Your task to perform on an android device: turn off location Image 0: 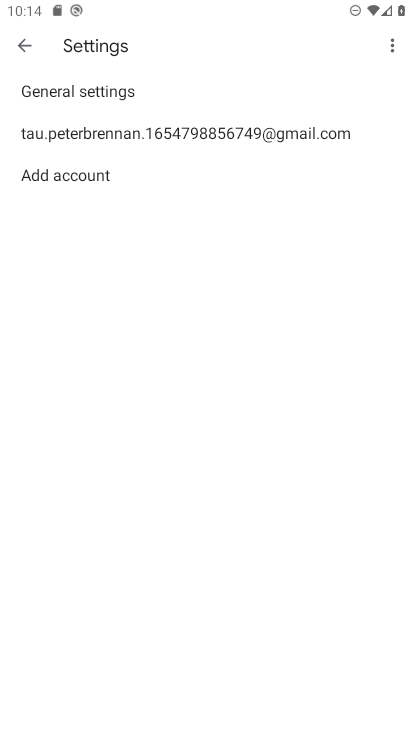
Step 0: press home button
Your task to perform on an android device: turn off location Image 1: 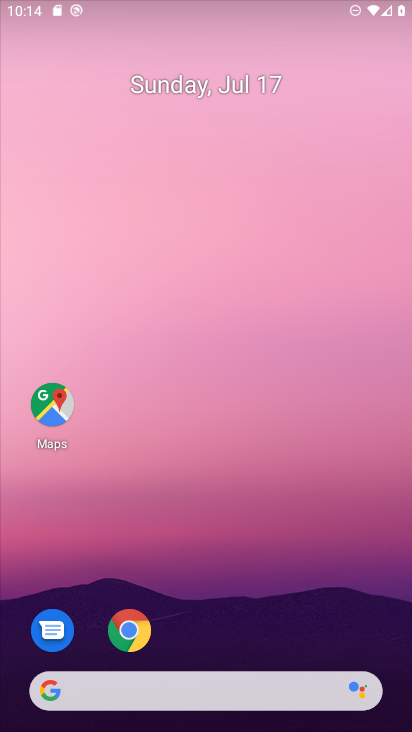
Step 1: drag from (230, 646) to (249, 191)
Your task to perform on an android device: turn off location Image 2: 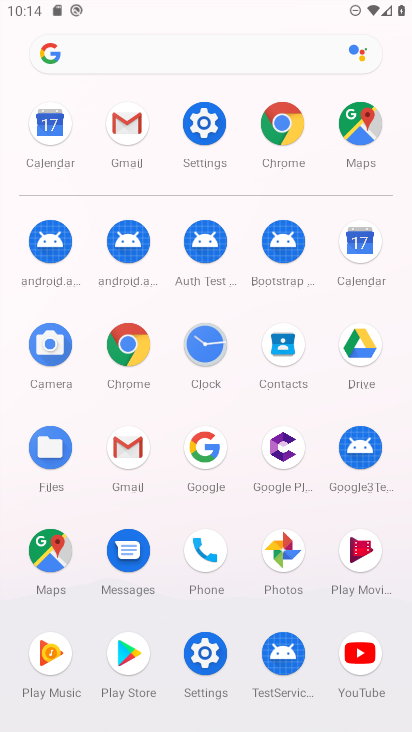
Step 2: click (281, 124)
Your task to perform on an android device: turn off location Image 3: 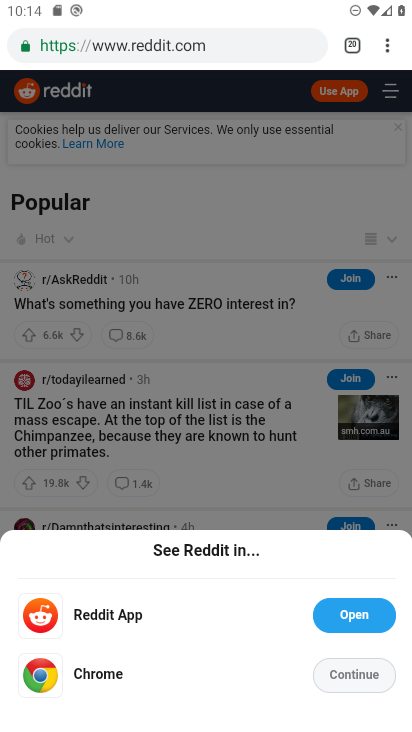
Step 3: click (383, 51)
Your task to perform on an android device: turn off location Image 4: 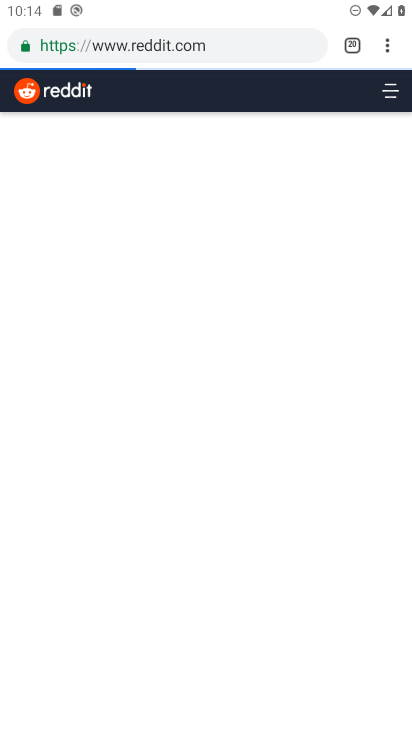
Step 4: click (388, 44)
Your task to perform on an android device: turn off location Image 5: 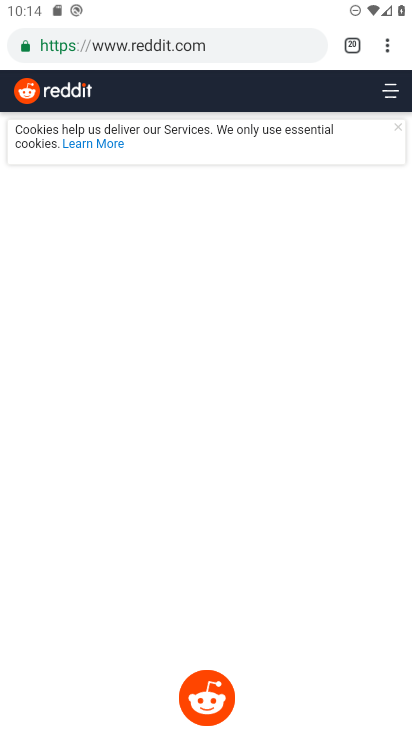
Step 5: click (386, 46)
Your task to perform on an android device: turn off location Image 6: 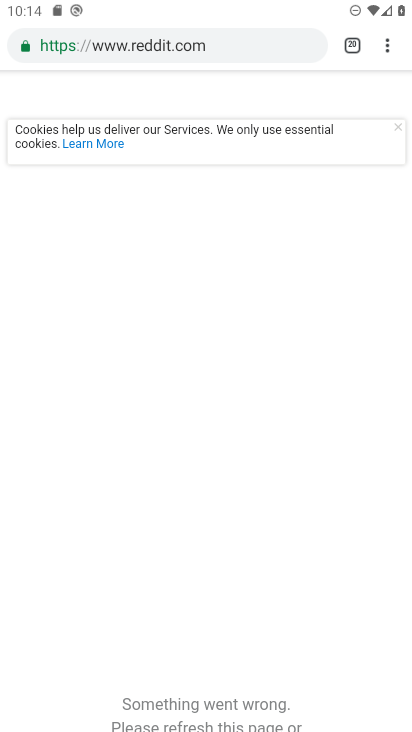
Step 6: click (387, 40)
Your task to perform on an android device: turn off location Image 7: 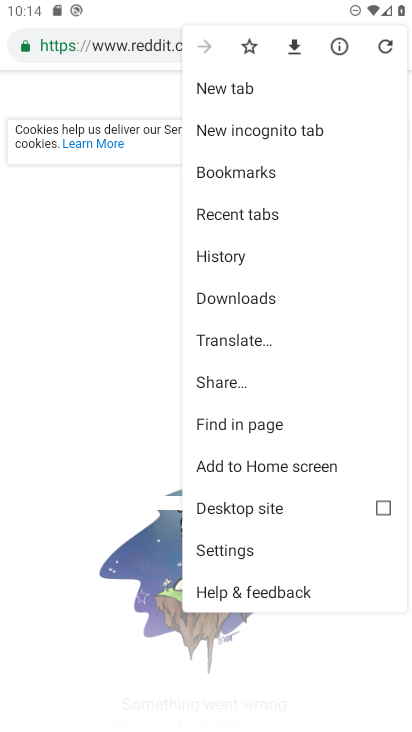
Step 7: click (251, 542)
Your task to perform on an android device: turn off location Image 8: 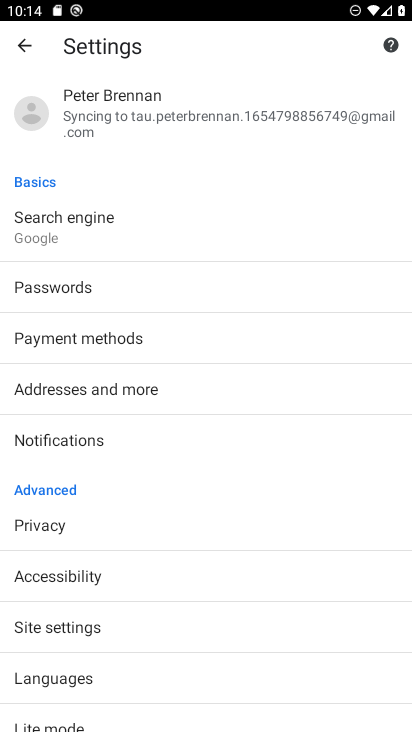
Step 8: drag from (149, 672) to (220, 241)
Your task to perform on an android device: turn off location Image 9: 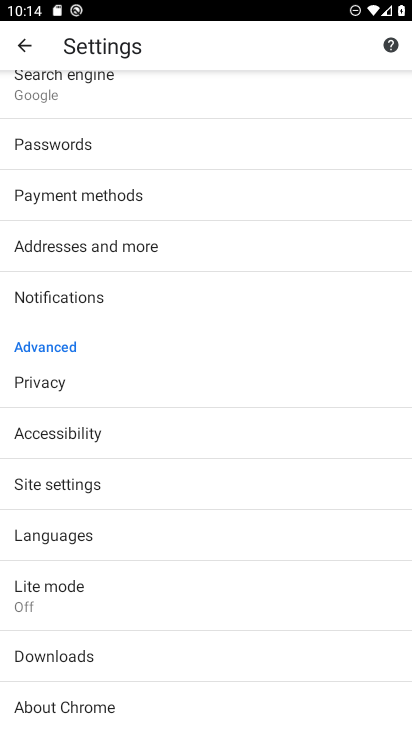
Step 9: drag from (131, 591) to (179, 298)
Your task to perform on an android device: turn off location Image 10: 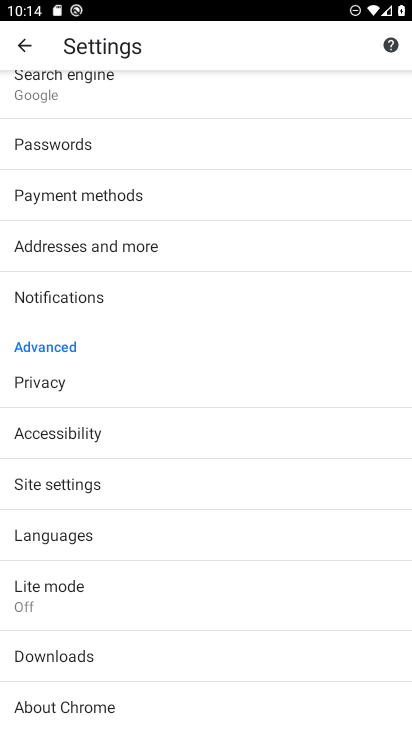
Step 10: drag from (169, 568) to (182, 431)
Your task to perform on an android device: turn off location Image 11: 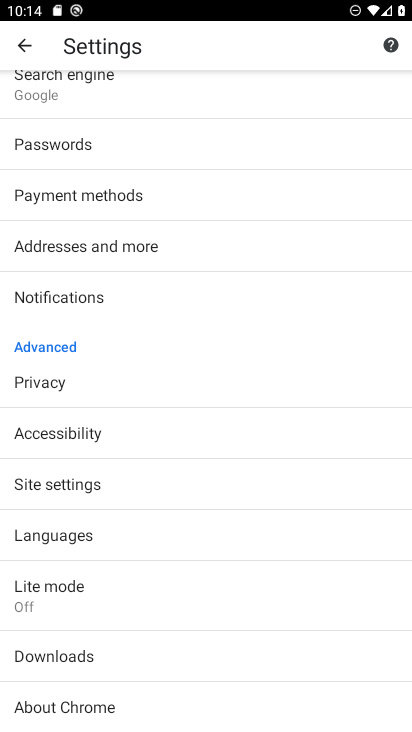
Step 11: click (157, 483)
Your task to perform on an android device: turn off location Image 12: 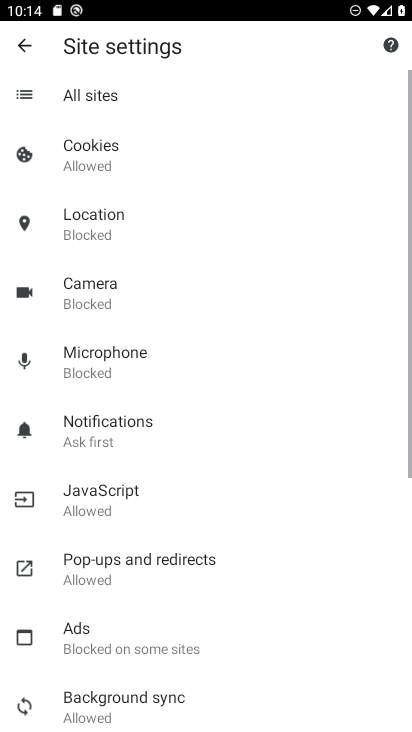
Step 12: click (146, 228)
Your task to perform on an android device: turn off location Image 13: 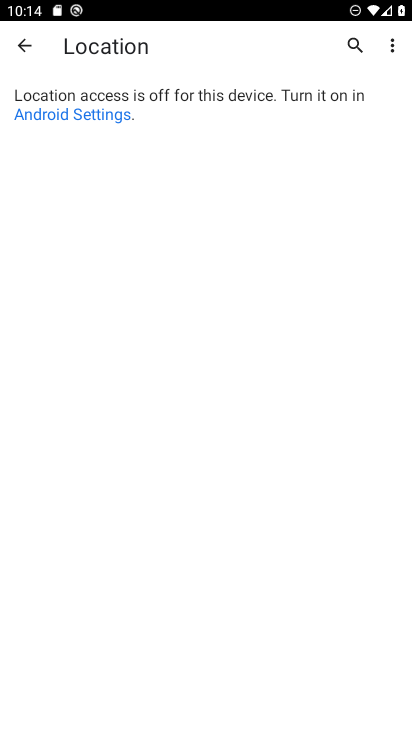
Step 13: click (25, 33)
Your task to perform on an android device: turn off location Image 14: 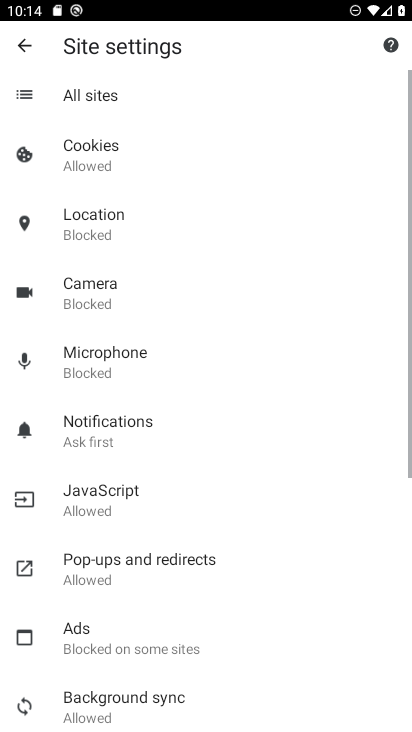
Step 14: click (25, 35)
Your task to perform on an android device: turn off location Image 15: 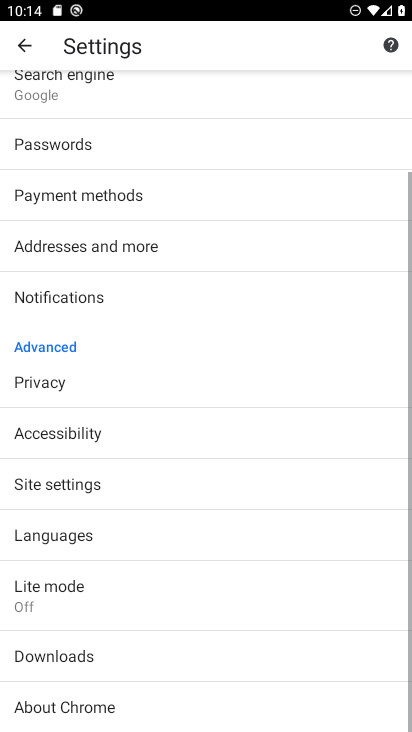
Step 15: press home button
Your task to perform on an android device: turn off location Image 16: 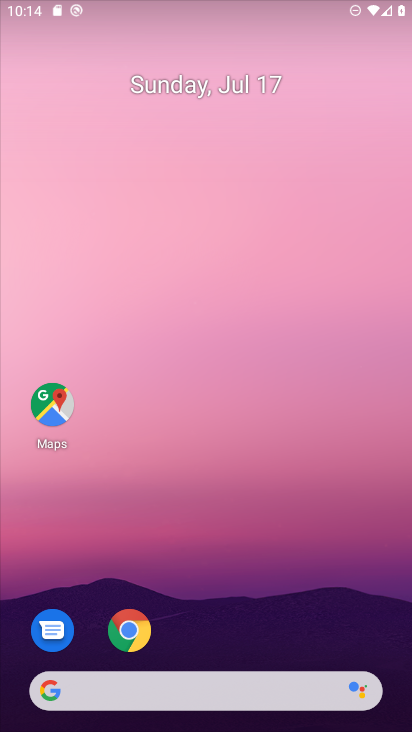
Step 16: drag from (270, 398) to (270, 69)
Your task to perform on an android device: turn off location Image 17: 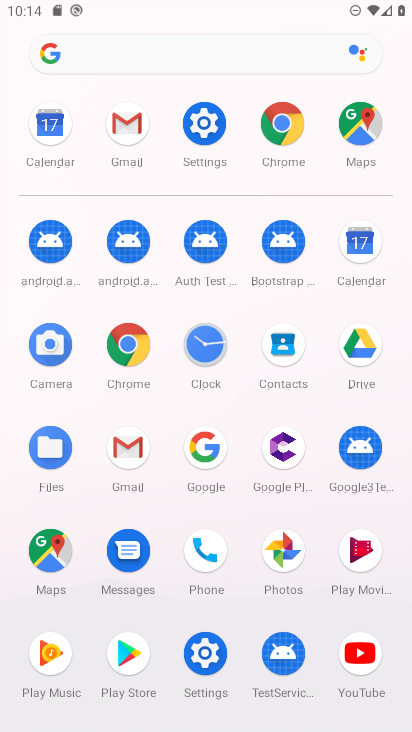
Step 17: click (207, 128)
Your task to perform on an android device: turn off location Image 18: 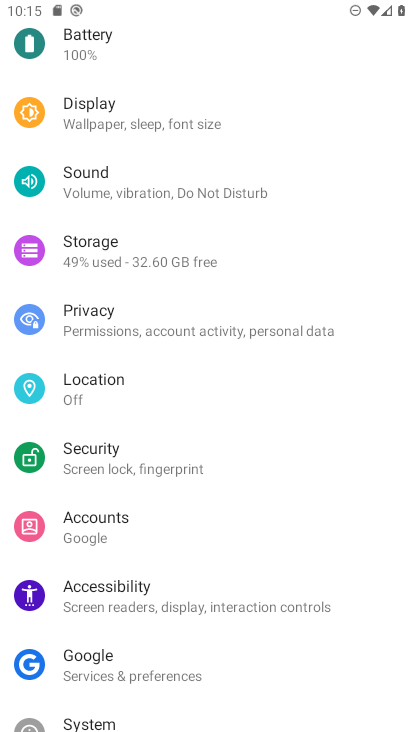
Step 18: click (156, 387)
Your task to perform on an android device: turn off location Image 19: 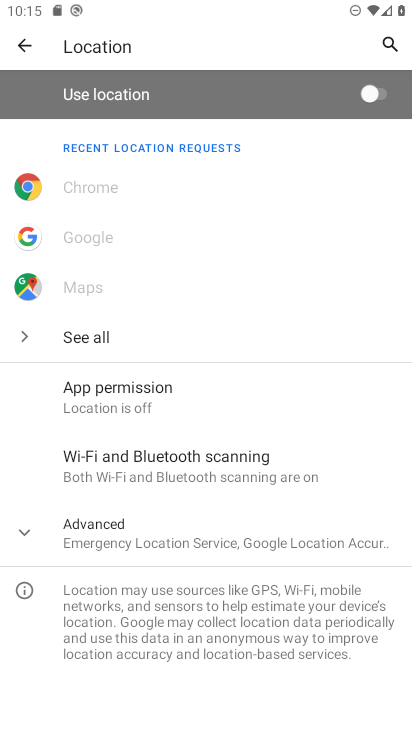
Step 19: task complete